Your task to perform on an android device: Open privacy settings Image 0: 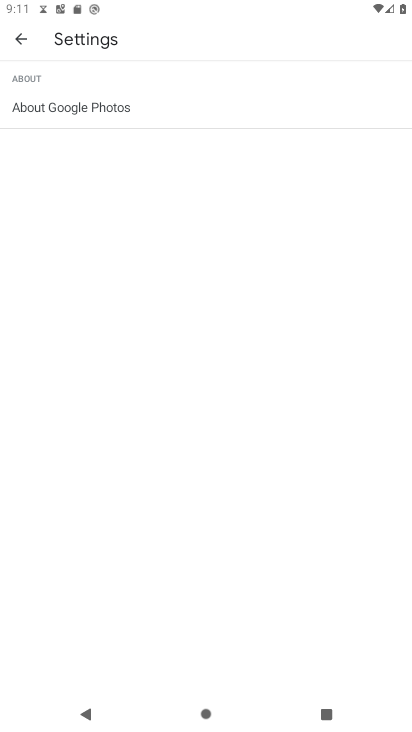
Step 0: press home button
Your task to perform on an android device: Open privacy settings Image 1: 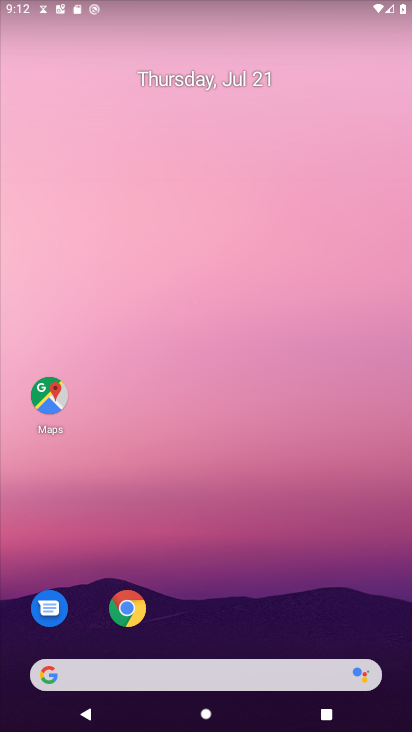
Step 1: drag from (214, 403) to (221, 336)
Your task to perform on an android device: Open privacy settings Image 2: 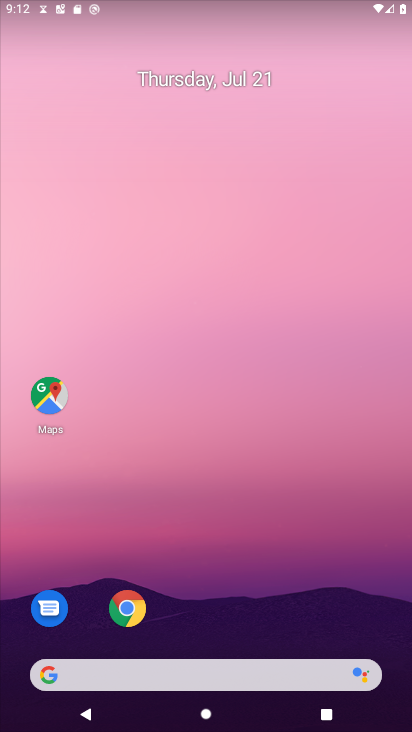
Step 2: drag from (186, 386) to (160, 60)
Your task to perform on an android device: Open privacy settings Image 3: 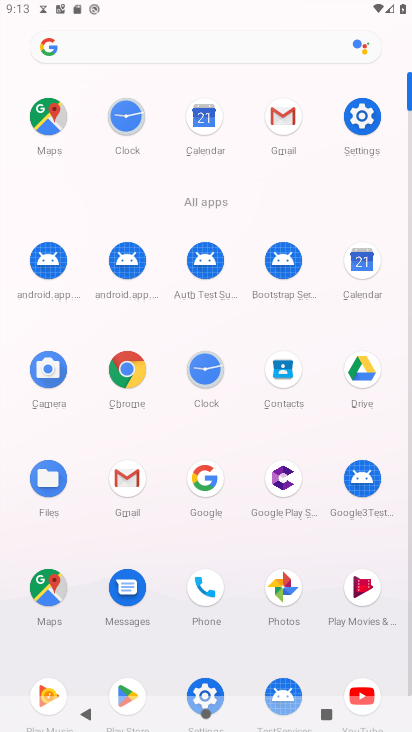
Step 3: click (363, 141)
Your task to perform on an android device: Open privacy settings Image 4: 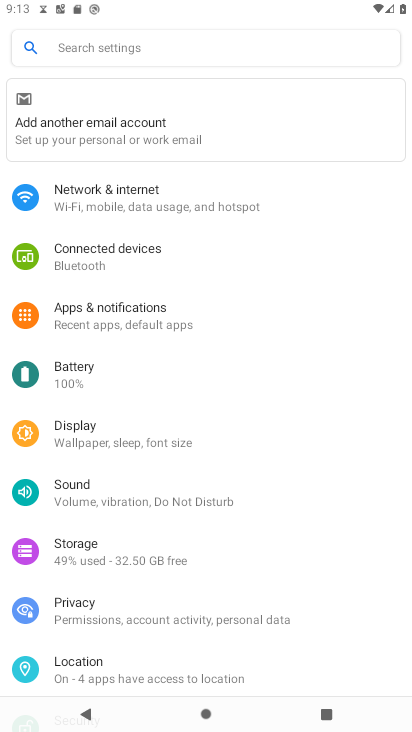
Step 4: click (79, 602)
Your task to perform on an android device: Open privacy settings Image 5: 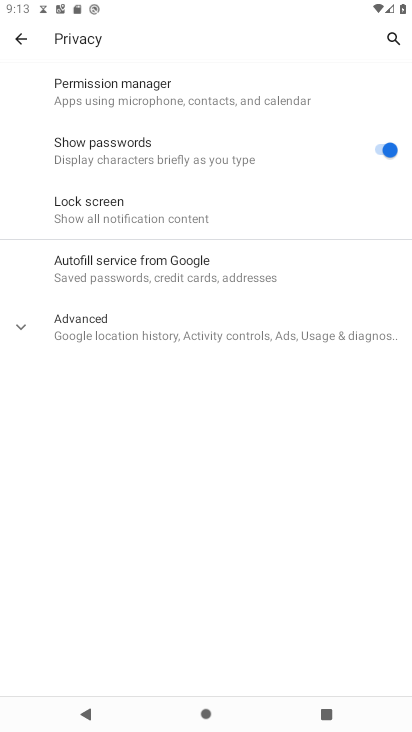
Step 5: task complete